Your task to perform on an android device: Open privacy settings Image 0: 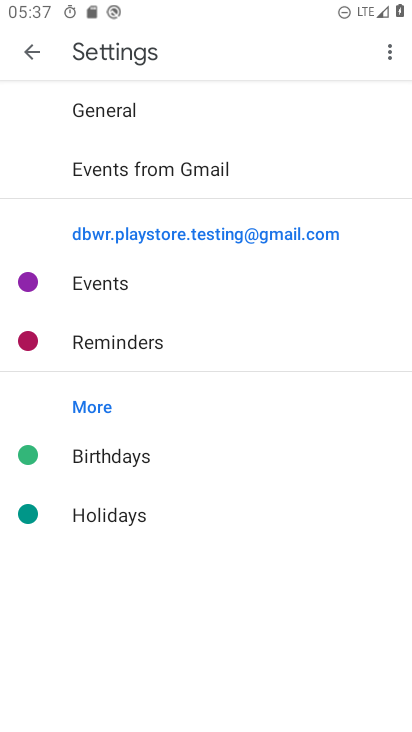
Step 0: press back button
Your task to perform on an android device: Open privacy settings Image 1: 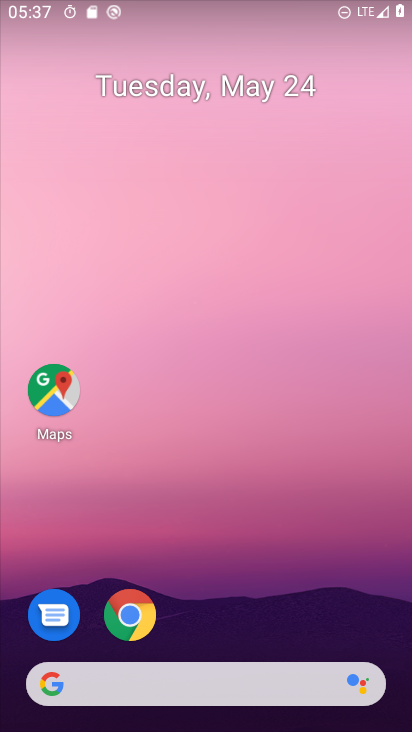
Step 1: drag from (266, 608) to (340, 28)
Your task to perform on an android device: Open privacy settings Image 2: 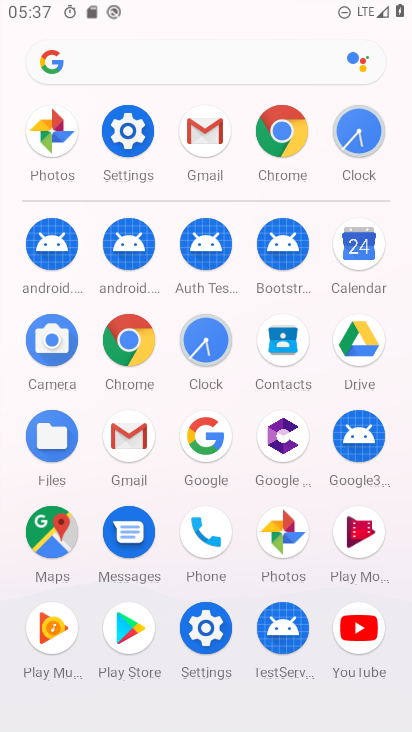
Step 2: click (123, 131)
Your task to perform on an android device: Open privacy settings Image 3: 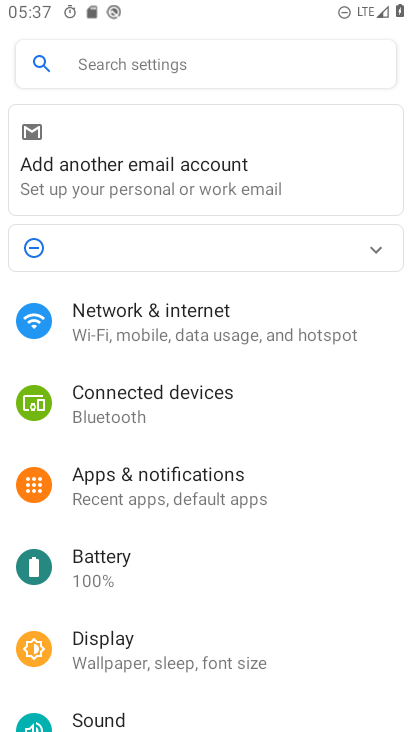
Step 3: drag from (148, 645) to (259, 164)
Your task to perform on an android device: Open privacy settings Image 4: 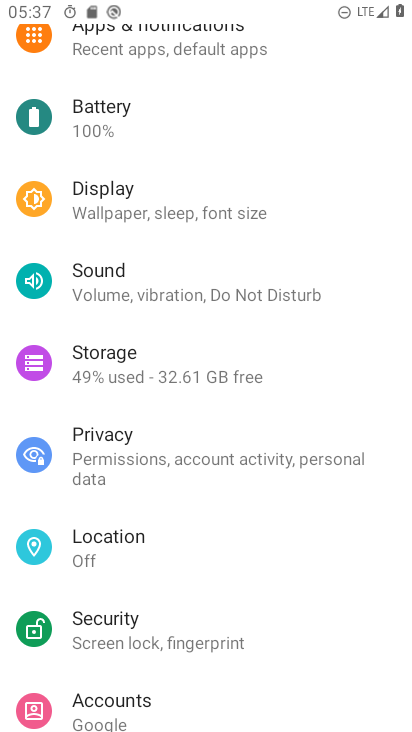
Step 4: click (117, 454)
Your task to perform on an android device: Open privacy settings Image 5: 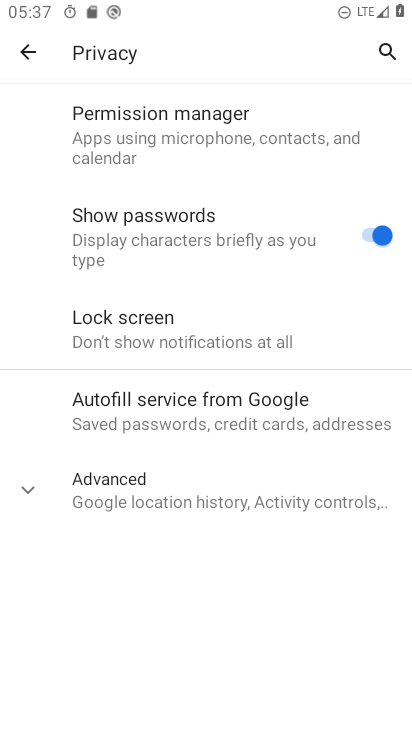
Step 5: task complete